Your task to perform on an android device: Open the calendar app, open the side menu, and click the "Day" option Image 0: 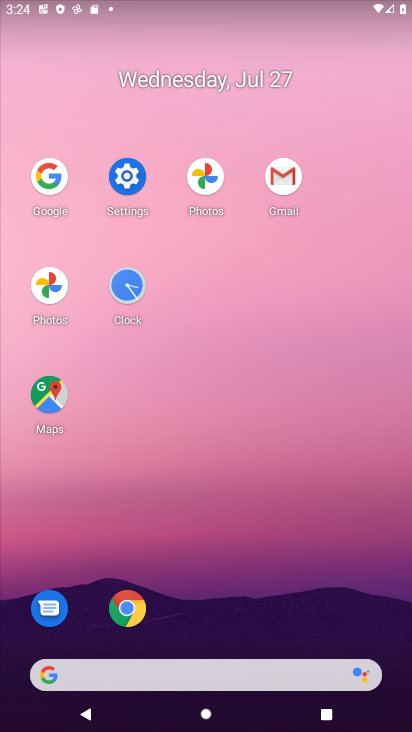
Step 0: drag from (243, 518) to (280, 90)
Your task to perform on an android device: Open the calendar app, open the side menu, and click the "Day" option Image 1: 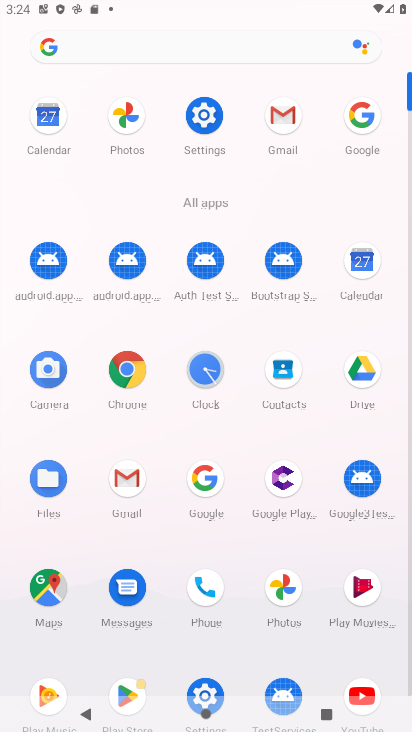
Step 1: drag from (361, 267) to (217, 286)
Your task to perform on an android device: Open the calendar app, open the side menu, and click the "Day" option Image 2: 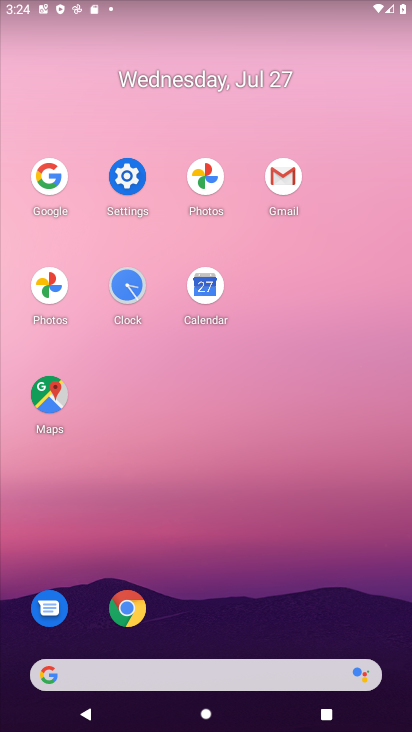
Step 2: click (203, 272)
Your task to perform on an android device: Open the calendar app, open the side menu, and click the "Day" option Image 3: 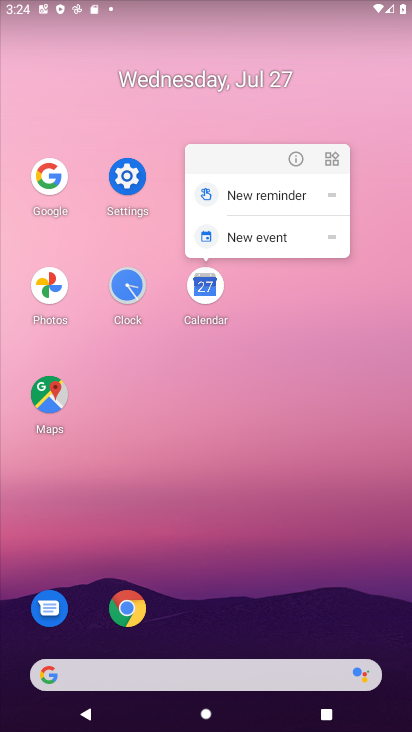
Step 3: click (200, 274)
Your task to perform on an android device: Open the calendar app, open the side menu, and click the "Day" option Image 4: 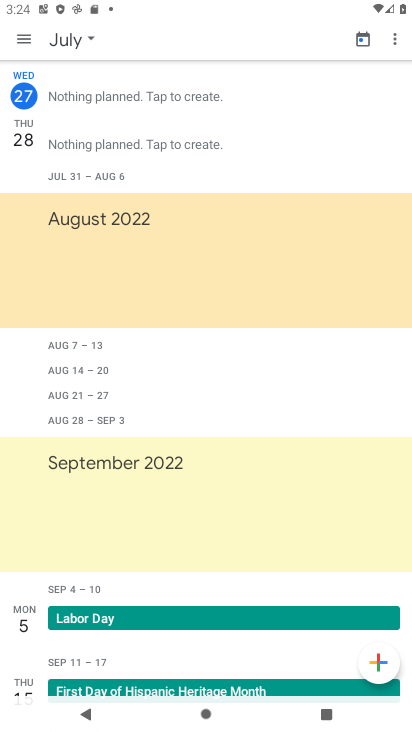
Step 4: click (30, 29)
Your task to perform on an android device: Open the calendar app, open the side menu, and click the "Day" option Image 5: 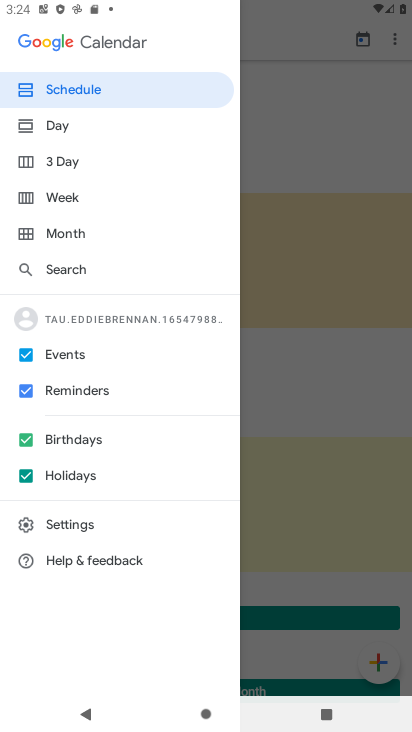
Step 5: click (75, 128)
Your task to perform on an android device: Open the calendar app, open the side menu, and click the "Day" option Image 6: 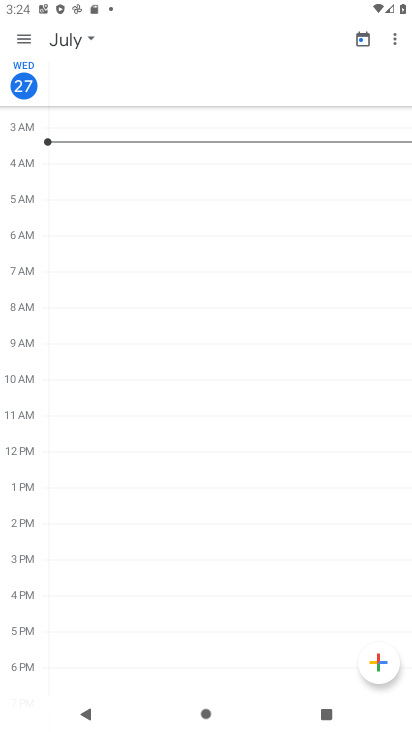
Step 6: task complete